Your task to perform on an android device: delete a single message in the gmail app Image 0: 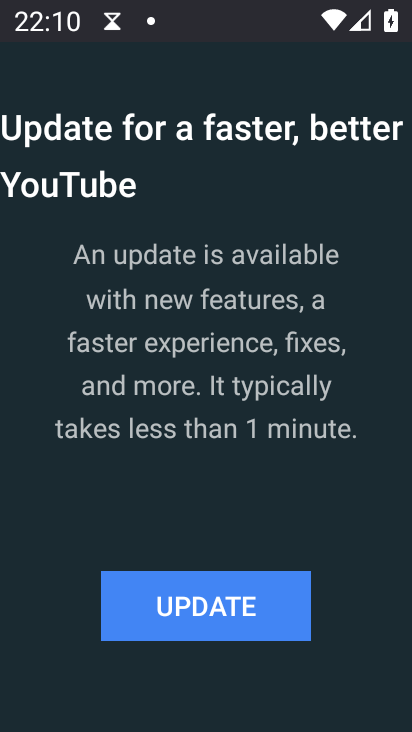
Step 0: press back button
Your task to perform on an android device: delete a single message in the gmail app Image 1: 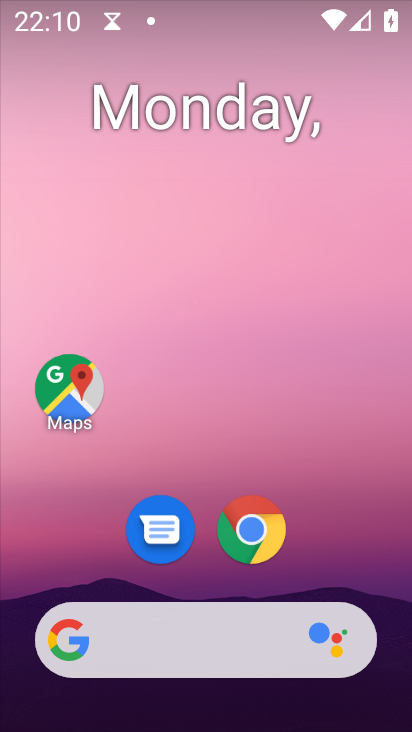
Step 1: drag from (325, 560) to (262, 213)
Your task to perform on an android device: delete a single message in the gmail app Image 2: 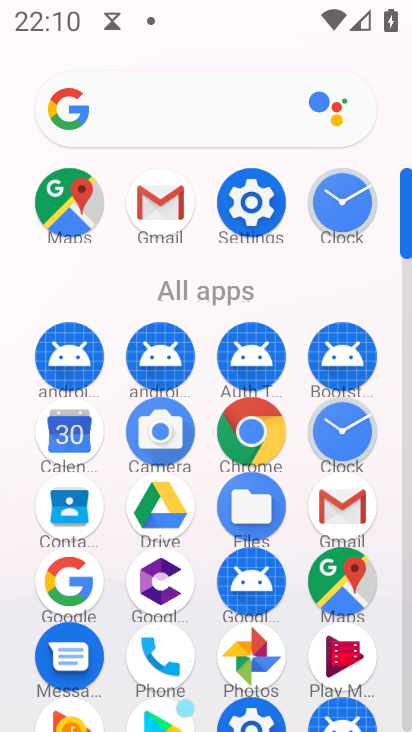
Step 2: click (160, 199)
Your task to perform on an android device: delete a single message in the gmail app Image 3: 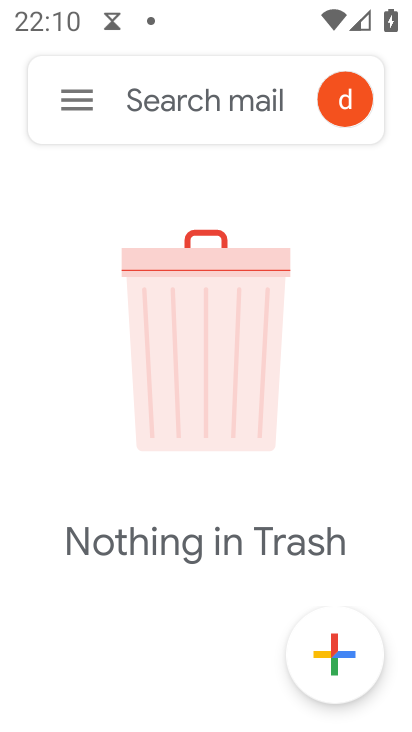
Step 3: click (73, 104)
Your task to perform on an android device: delete a single message in the gmail app Image 4: 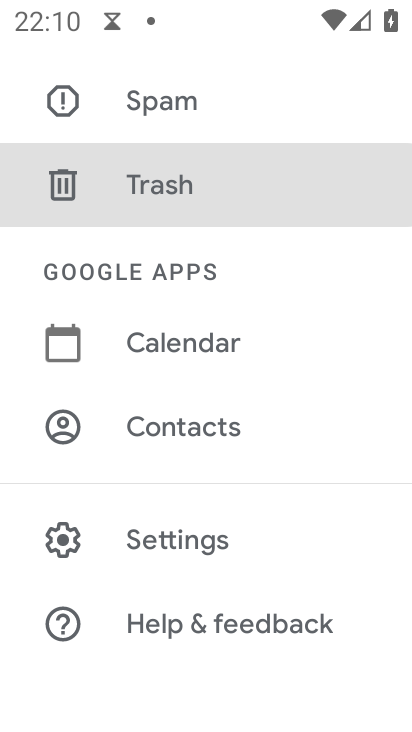
Step 4: drag from (189, 129) to (200, 337)
Your task to perform on an android device: delete a single message in the gmail app Image 5: 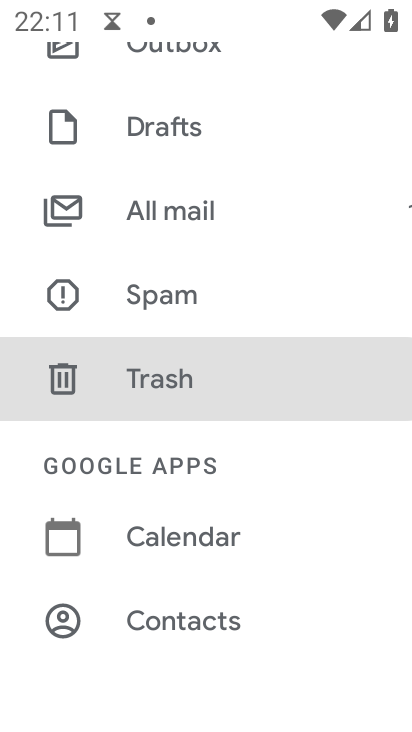
Step 5: click (209, 201)
Your task to perform on an android device: delete a single message in the gmail app Image 6: 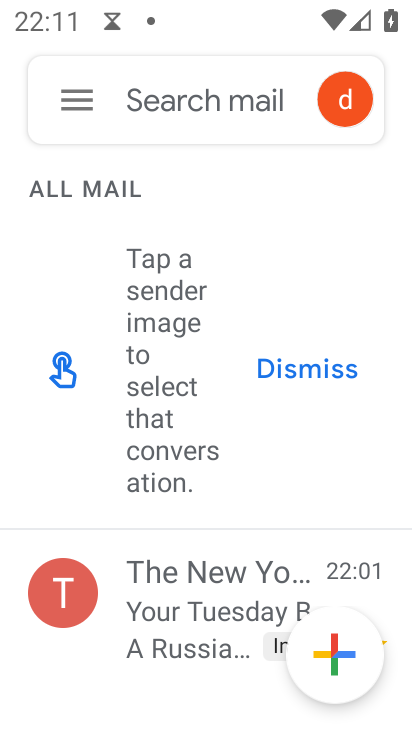
Step 6: click (206, 584)
Your task to perform on an android device: delete a single message in the gmail app Image 7: 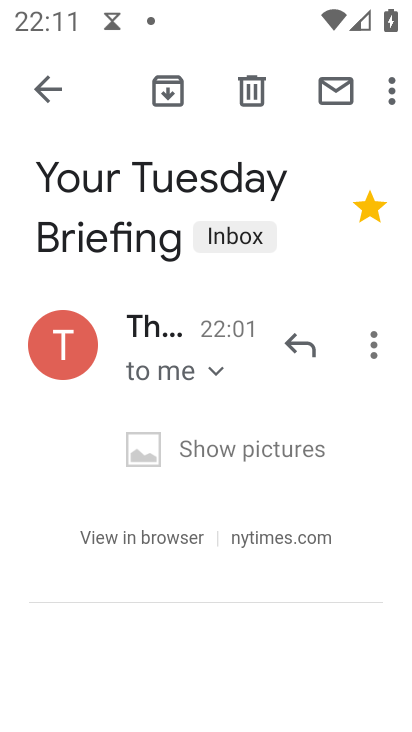
Step 7: click (245, 107)
Your task to perform on an android device: delete a single message in the gmail app Image 8: 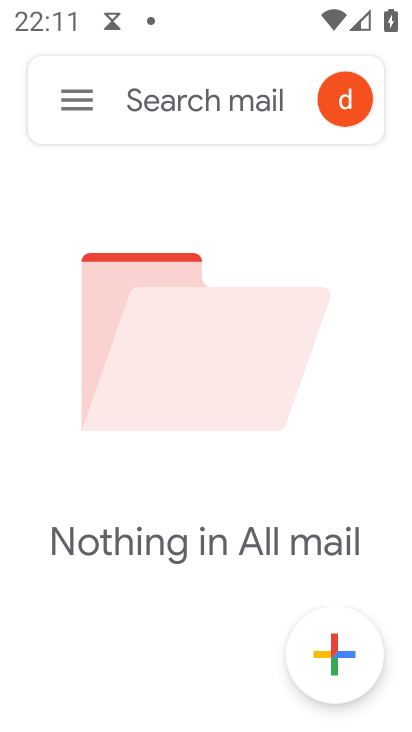
Step 8: task complete